Your task to perform on an android device: snooze an email in the gmail app Image 0: 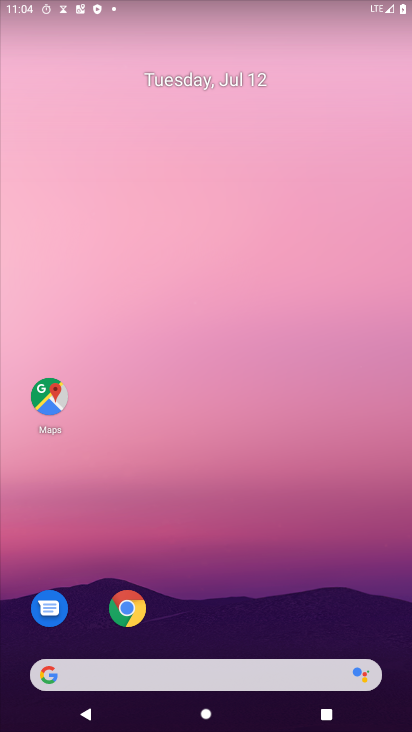
Step 0: drag from (260, 519) to (240, 2)
Your task to perform on an android device: snooze an email in the gmail app Image 1: 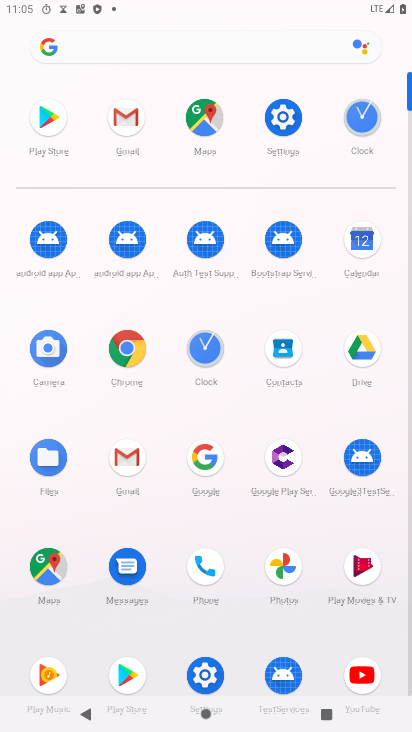
Step 1: click (123, 468)
Your task to perform on an android device: snooze an email in the gmail app Image 2: 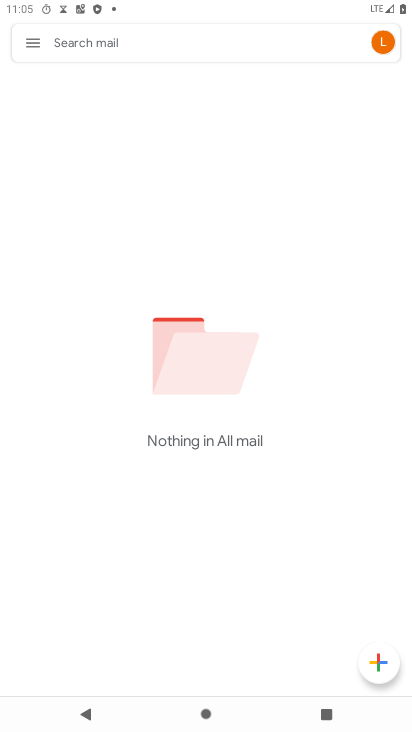
Step 2: task complete